Your task to perform on an android device: find photos in the google photos app Image 0: 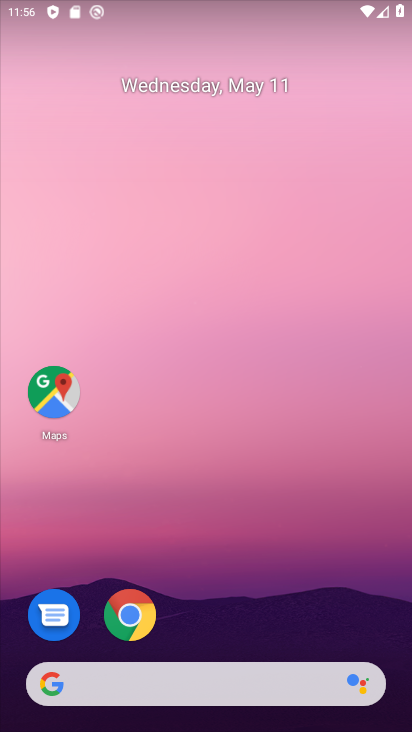
Step 0: drag from (304, 527) to (309, 22)
Your task to perform on an android device: find photos in the google photos app Image 1: 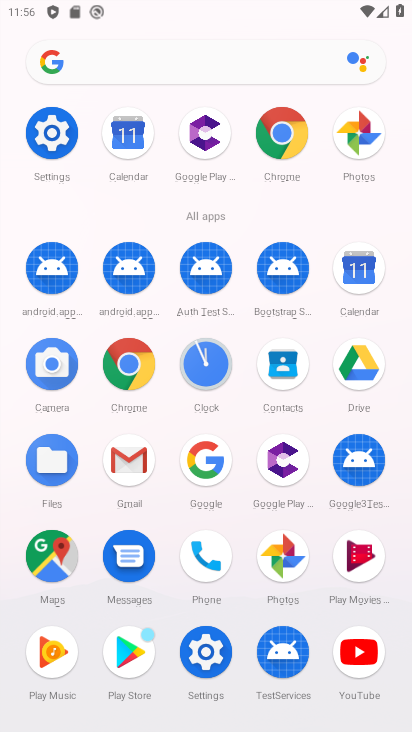
Step 1: click (365, 147)
Your task to perform on an android device: find photos in the google photos app Image 2: 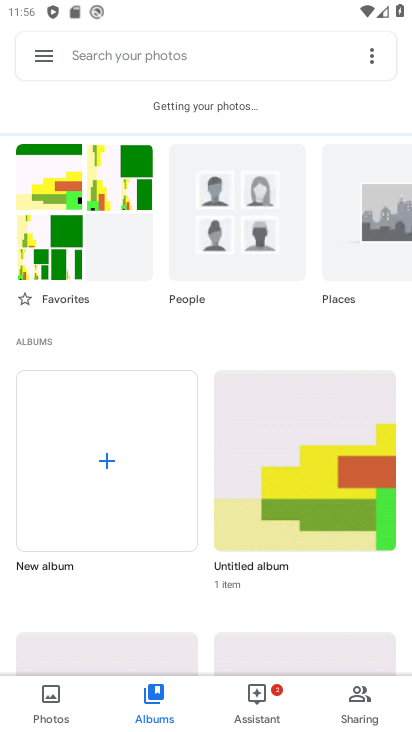
Step 2: click (41, 701)
Your task to perform on an android device: find photos in the google photos app Image 3: 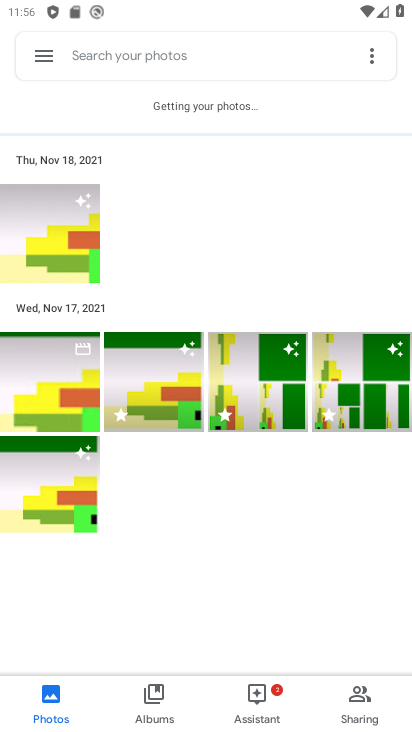
Step 3: click (55, 235)
Your task to perform on an android device: find photos in the google photos app Image 4: 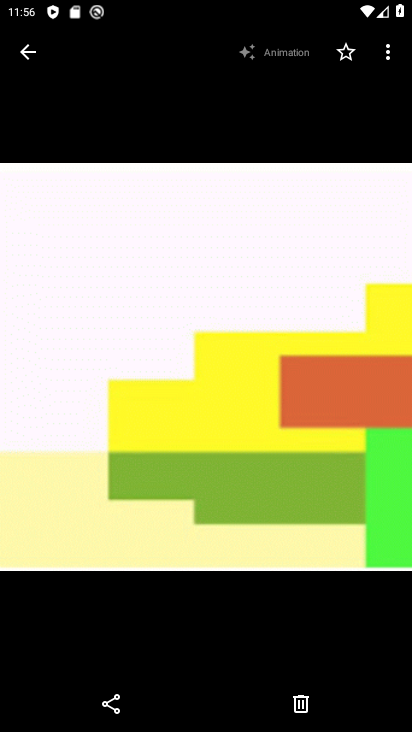
Step 4: task complete